Your task to perform on an android device: toggle pop-ups in chrome Image 0: 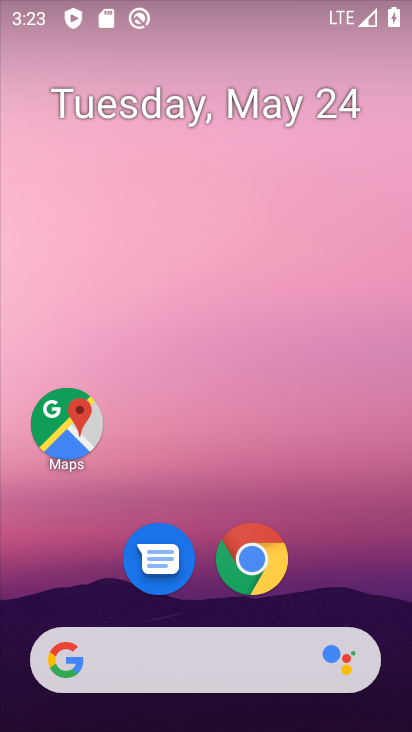
Step 0: click (254, 555)
Your task to perform on an android device: toggle pop-ups in chrome Image 1: 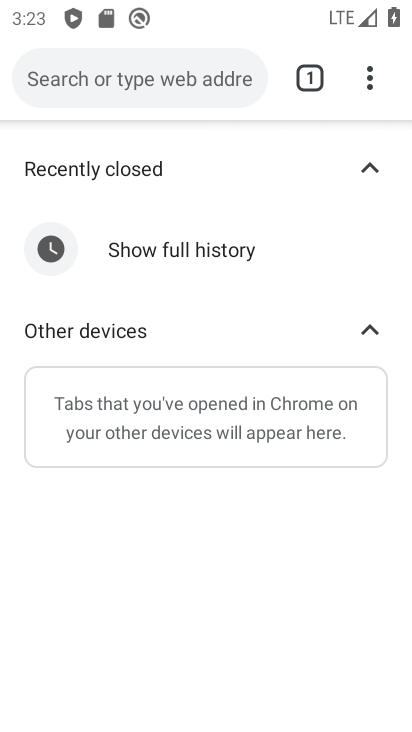
Step 1: click (368, 79)
Your task to perform on an android device: toggle pop-ups in chrome Image 2: 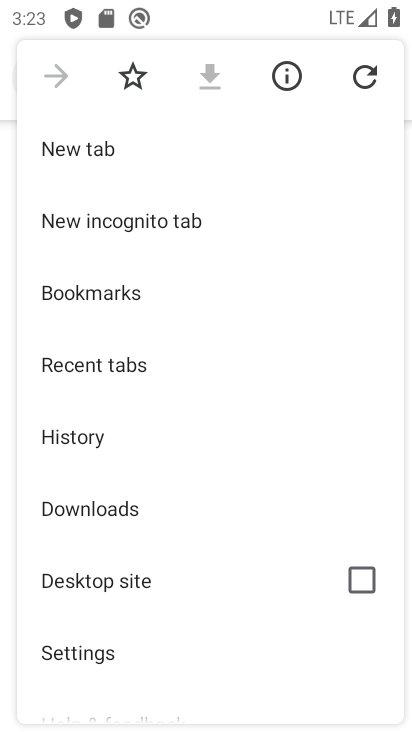
Step 2: drag from (126, 541) to (153, 450)
Your task to perform on an android device: toggle pop-ups in chrome Image 3: 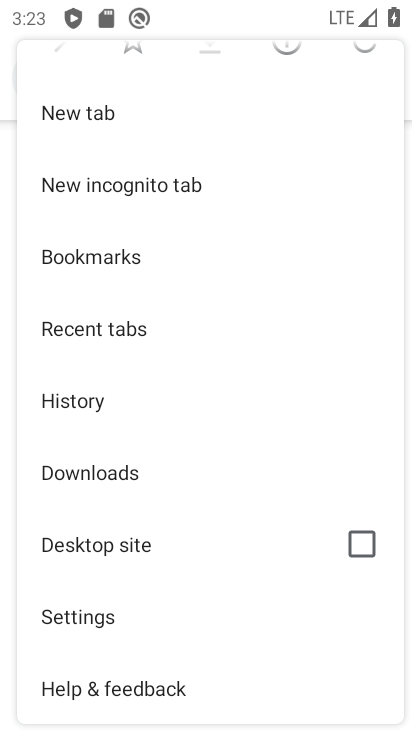
Step 3: click (58, 623)
Your task to perform on an android device: toggle pop-ups in chrome Image 4: 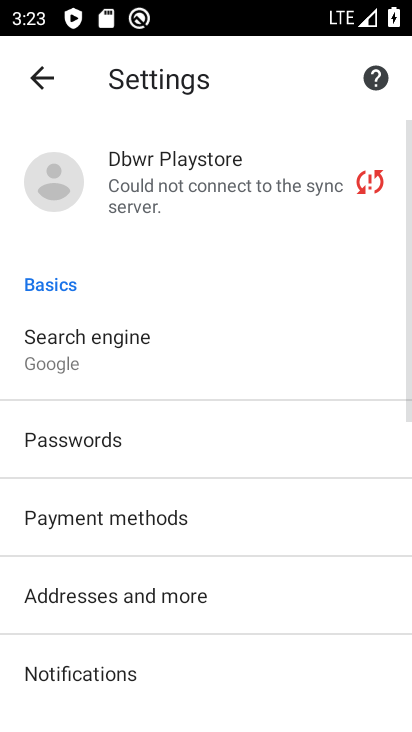
Step 4: drag from (194, 572) to (225, 457)
Your task to perform on an android device: toggle pop-ups in chrome Image 5: 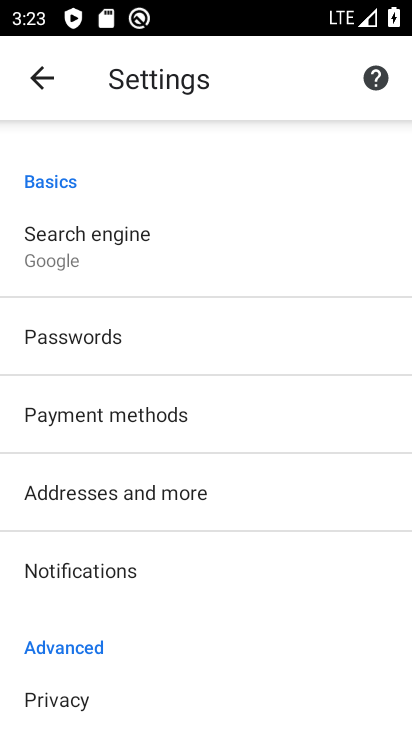
Step 5: drag from (182, 576) to (238, 483)
Your task to perform on an android device: toggle pop-ups in chrome Image 6: 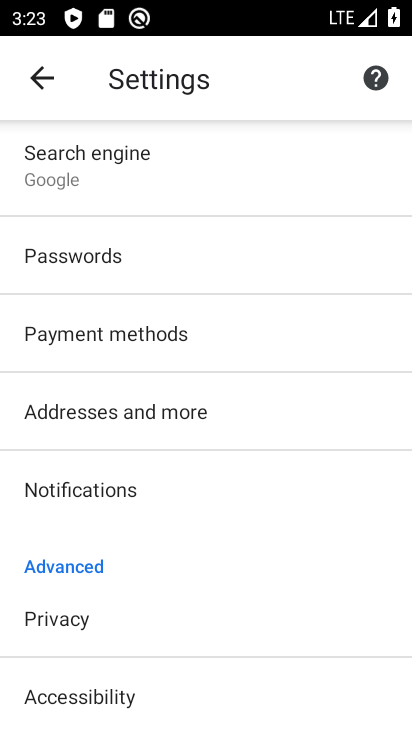
Step 6: drag from (156, 614) to (211, 517)
Your task to perform on an android device: toggle pop-ups in chrome Image 7: 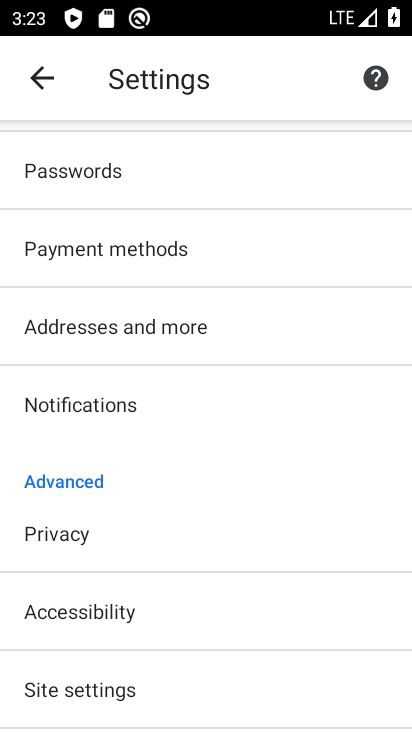
Step 7: drag from (147, 631) to (216, 529)
Your task to perform on an android device: toggle pop-ups in chrome Image 8: 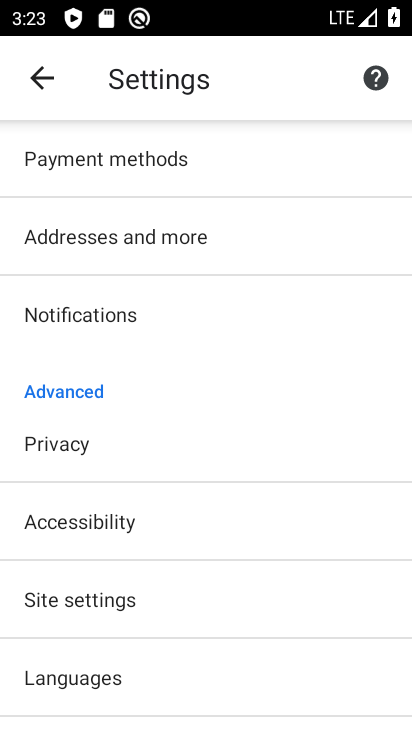
Step 8: click (69, 602)
Your task to perform on an android device: toggle pop-ups in chrome Image 9: 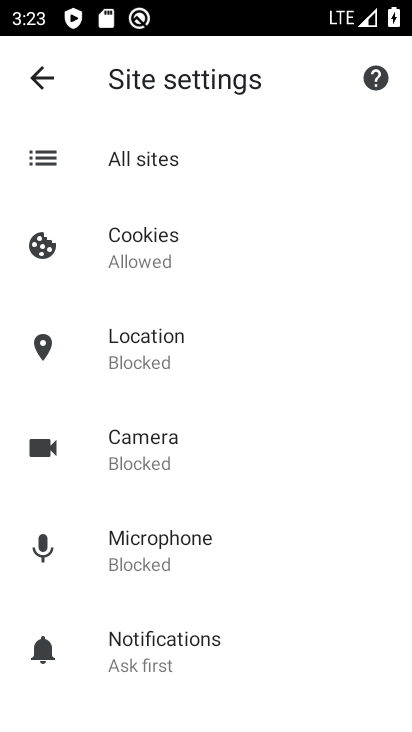
Step 9: drag from (199, 556) to (252, 456)
Your task to perform on an android device: toggle pop-ups in chrome Image 10: 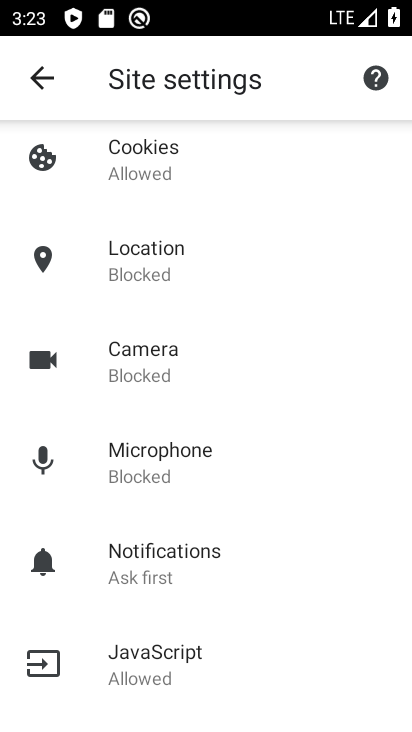
Step 10: drag from (189, 598) to (256, 489)
Your task to perform on an android device: toggle pop-ups in chrome Image 11: 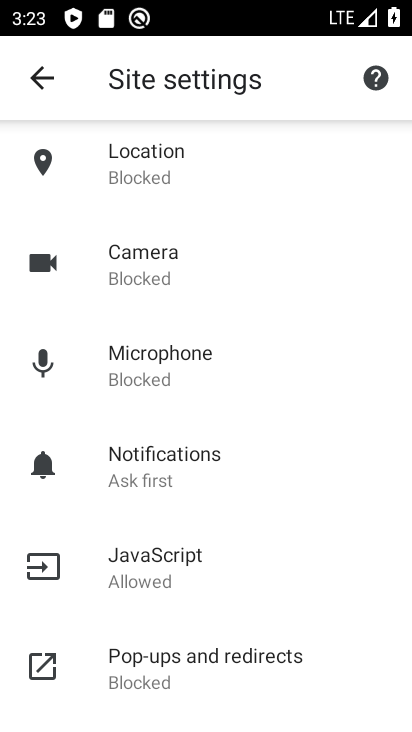
Step 11: drag from (215, 600) to (275, 495)
Your task to perform on an android device: toggle pop-ups in chrome Image 12: 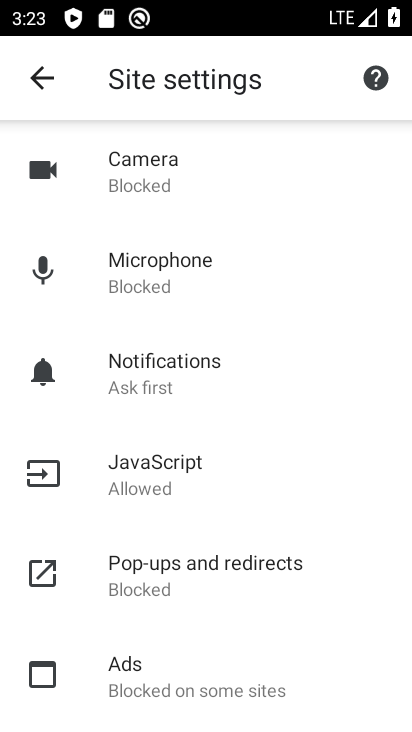
Step 12: click (242, 563)
Your task to perform on an android device: toggle pop-ups in chrome Image 13: 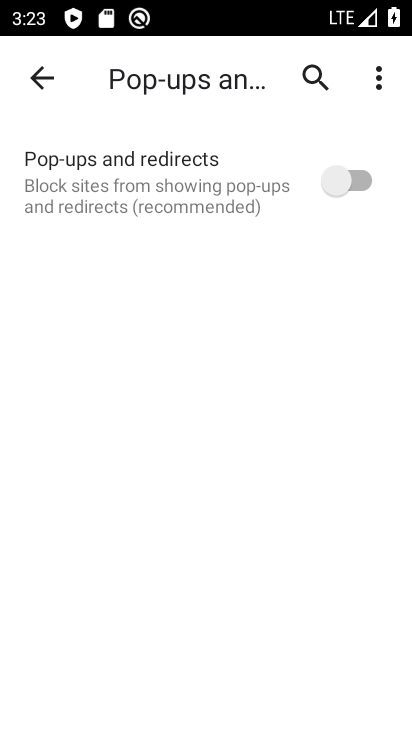
Step 13: click (358, 175)
Your task to perform on an android device: toggle pop-ups in chrome Image 14: 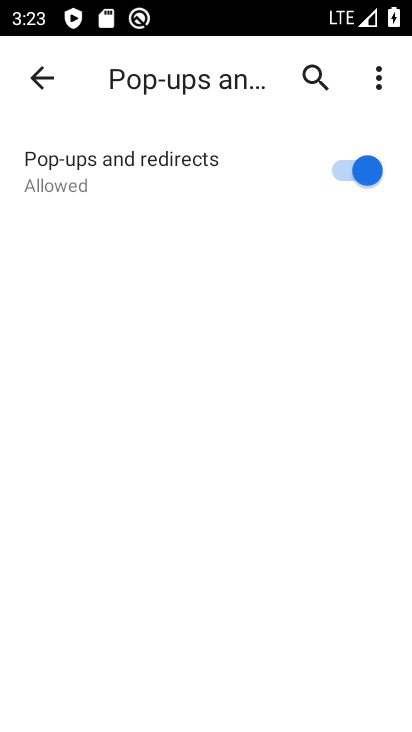
Step 14: task complete